Your task to perform on an android device: toggle pop-ups in chrome Image 0: 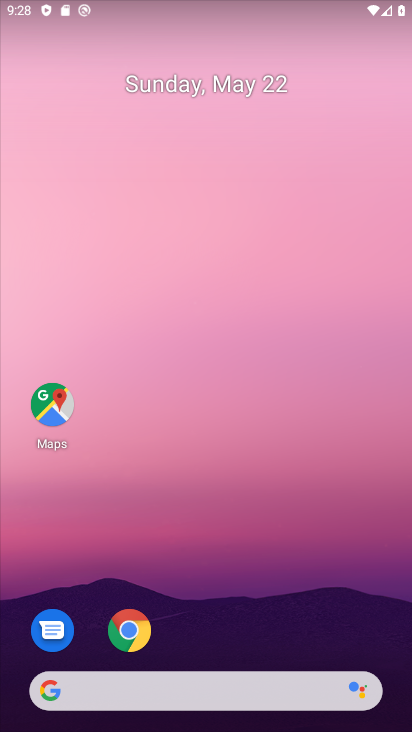
Step 0: click (144, 623)
Your task to perform on an android device: toggle pop-ups in chrome Image 1: 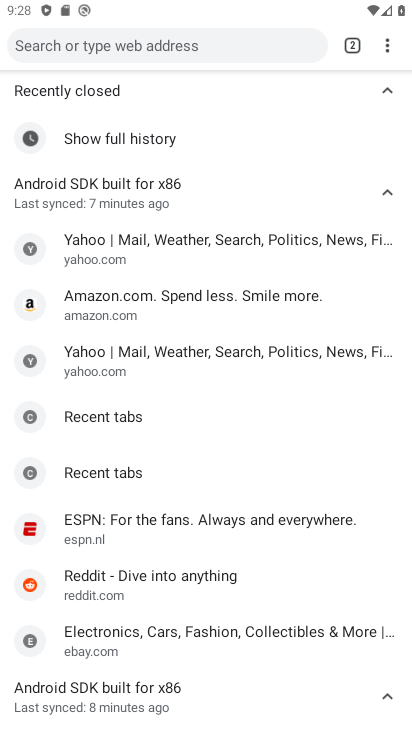
Step 1: click (384, 43)
Your task to perform on an android device: toggle pop-ups in chrome Image 2: 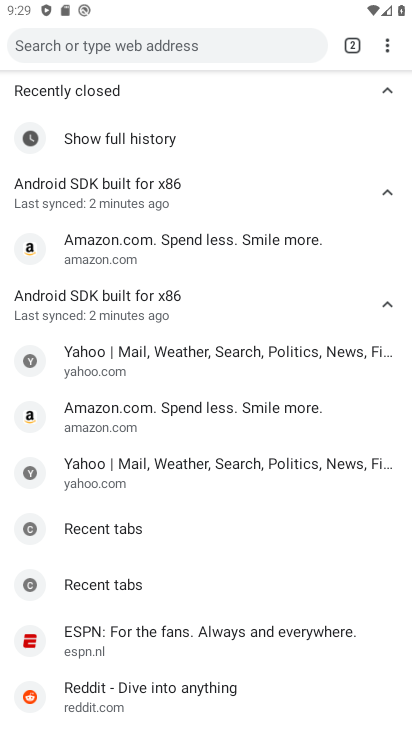
Step 2: click (388, 39)
Your task to perform on an android device: toggle pop-ups in chrome Image 3: 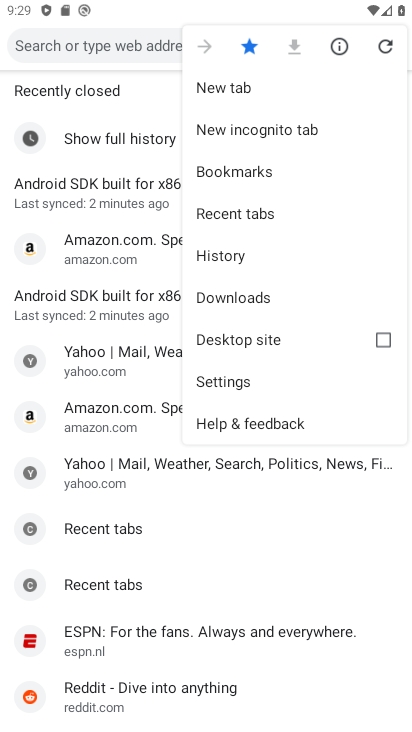
Step 3: click (233, 374)
Your task to perform on an android device: toggle pop-ups in chrome Image 4: 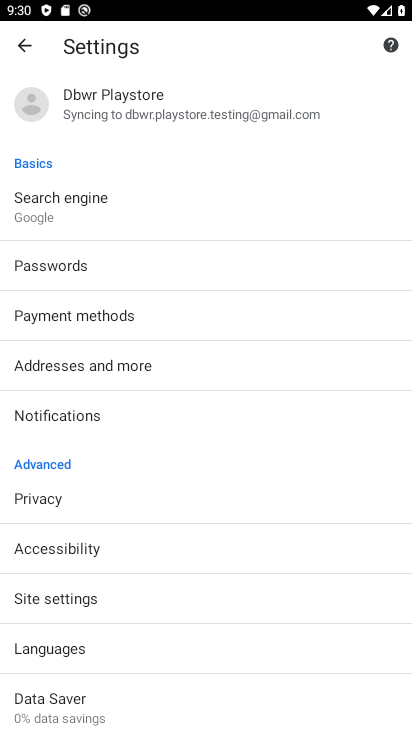
Step 4: drag from (207, 613) to (211, 416)
Your task to perform on an android device: toggle pop-ups in chrome Image 5: 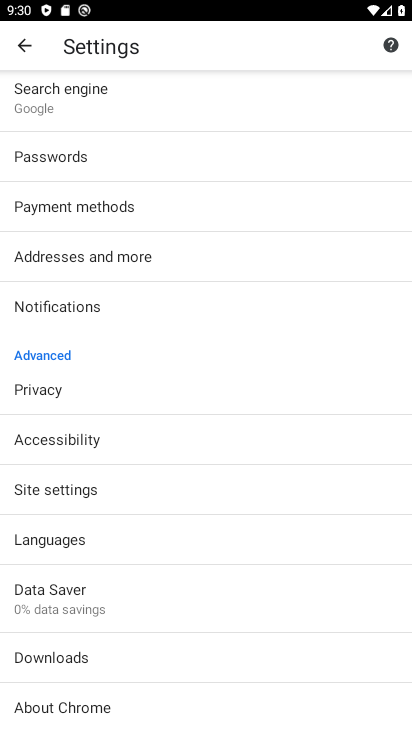
Step 5: click (93, 499)
Your task to perform on an android device: toggle pop-ups in chrome Image 6: 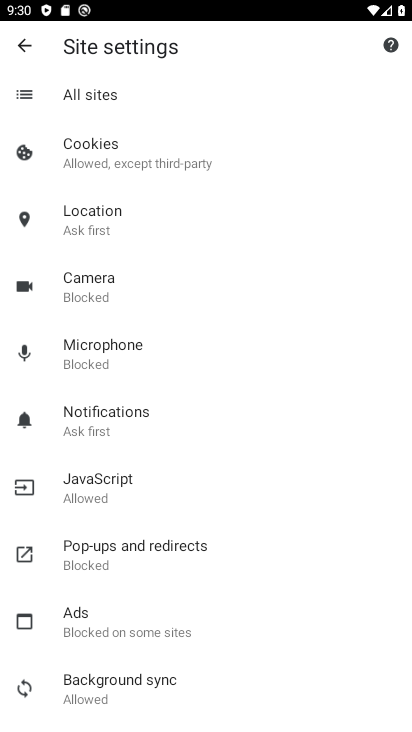
Step 6: click (161, 546)
Your task to perform on an android device: toggle pop-ups in chrome Image 7: 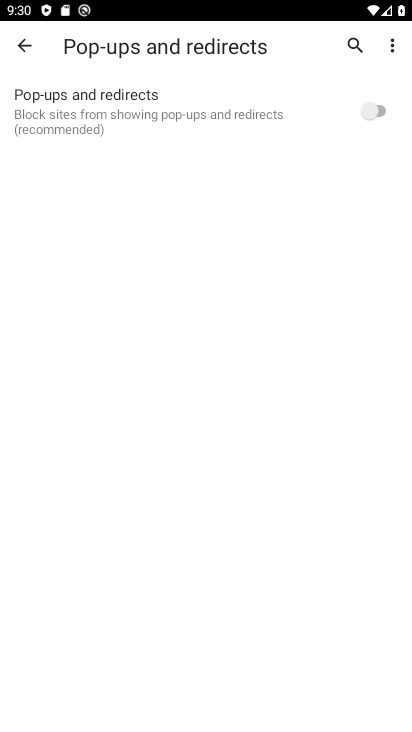
Step 7: click (373, 112)
Your task to perform on an android device: toggle pop-ups in chrome Image 8: 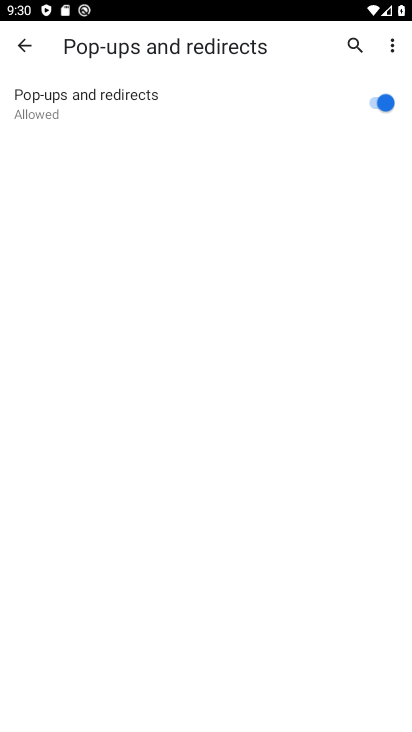
Step 8: task complete